Your task to perform on an android device: Show me popular games on the Play Store Image 0: 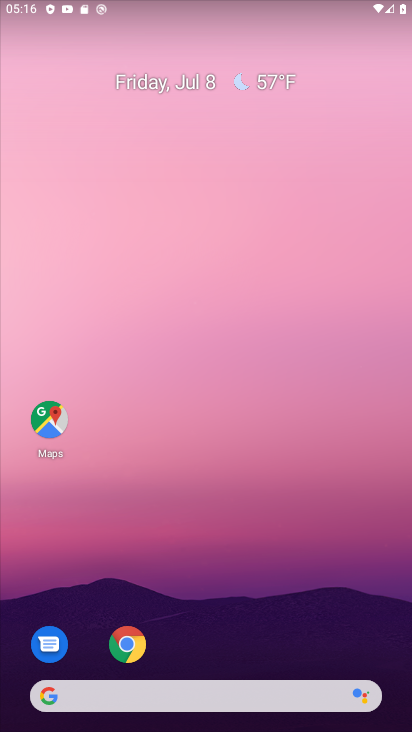
Step 0: drag from (223, 693) to (218, 63)
Your task to perform on an android device: Show me popular games on the Play Store Image 1: 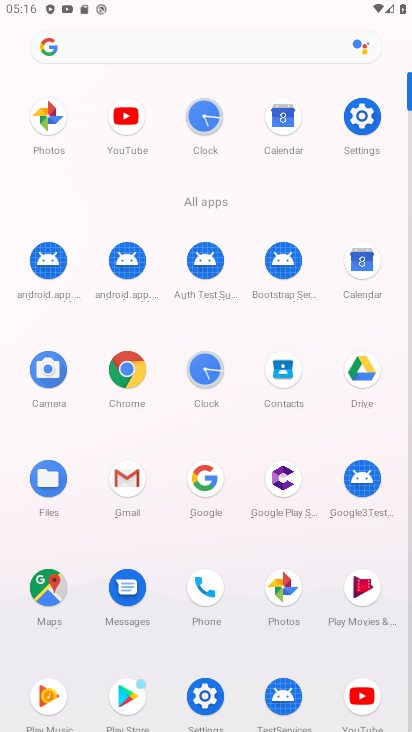
Step 1: click (130, 695)
Your task to perform on an android device: Show me popular games on the Play Store Image 2: 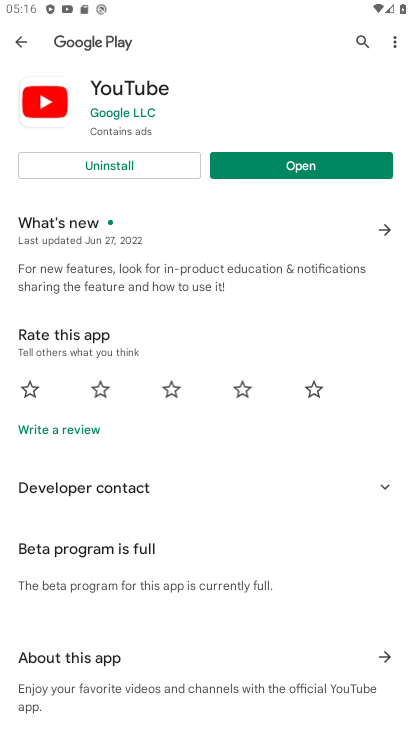
Step 2: press back button
Your task to perform on an android device: Show me popular games on the Play Store Image 3: 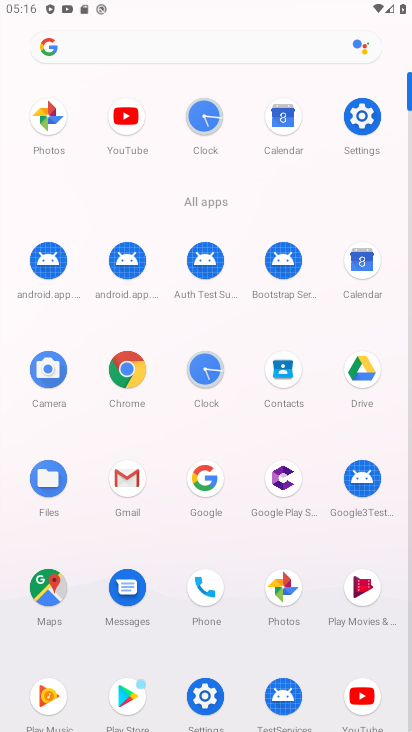
Step 3: click (124, 694)
Your task to perform on an android device: Show me popular games on the Play Store Image 4: 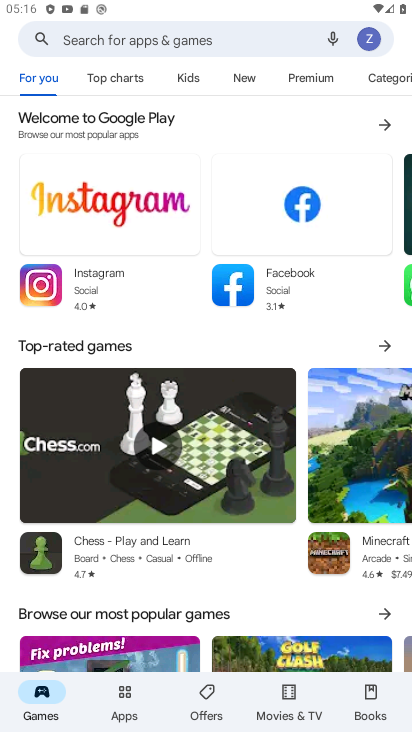
Step 4: click (275, 43)
Your task to perform on an android device: Show me popular games on the Play Store Image 5: 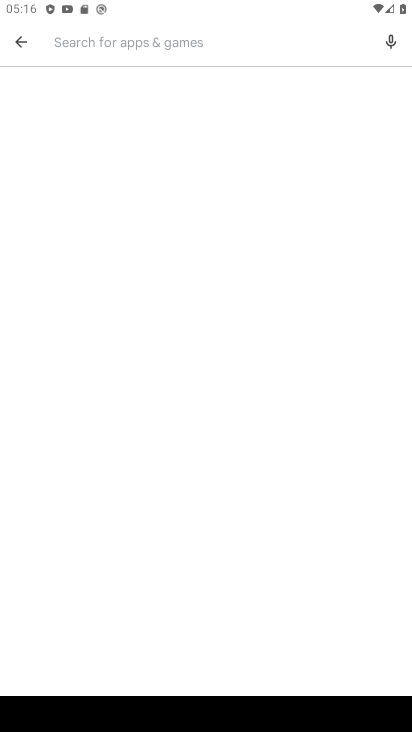
Step 5: type "popular games"
Your task to perform on an android device: Show me popular games on the Play Store Image 6: 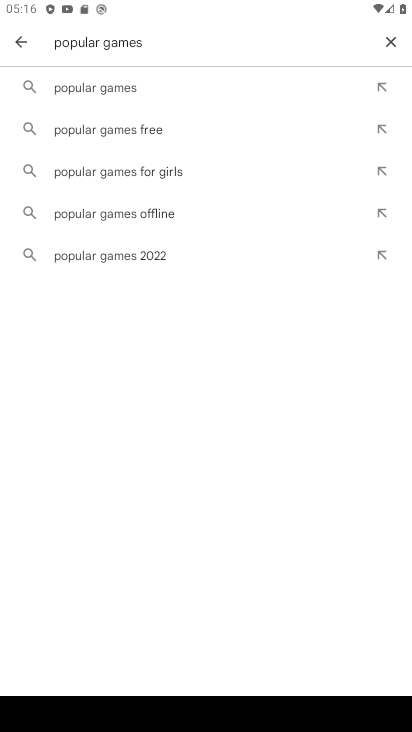
Step 6: click (119, 86)
Your task to perform on an android device: Show me popular games on the Play Store Image 7: 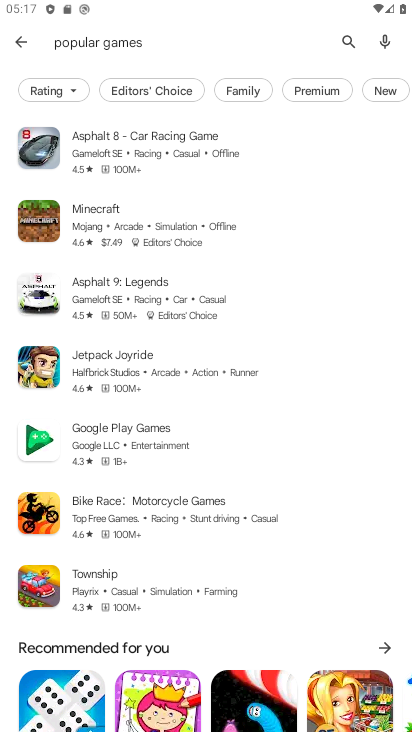
Step 7: task complete